Your task to perform on an android device: turn off location Image 0: 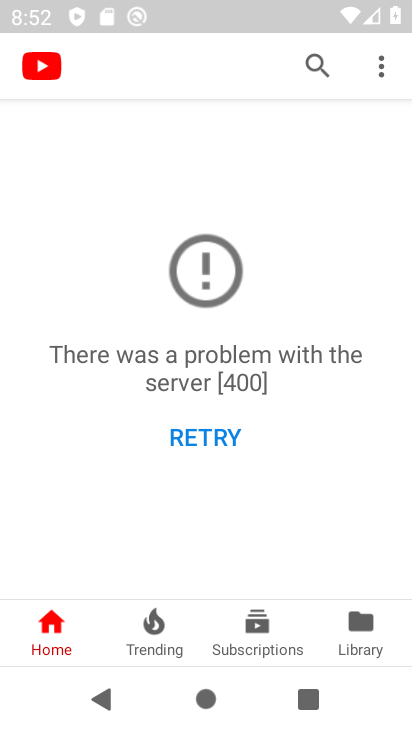
Step 0: press home button
Your task to perform on an android device: turn off location Image 1: 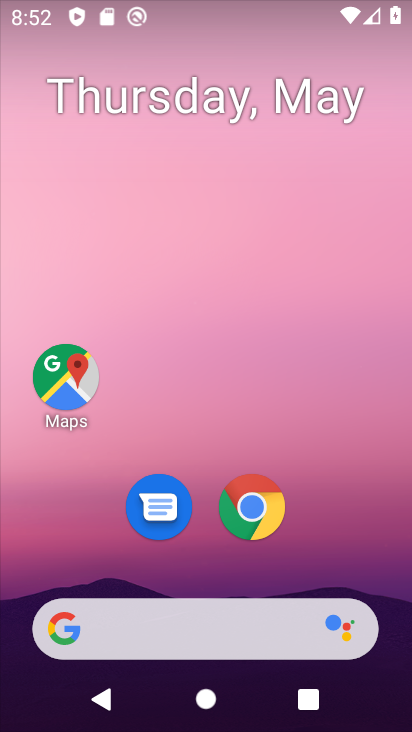
Step 1: drag from (329, 499) to (317, 16)
Your task to perform on an android device: turn off location Image 2: 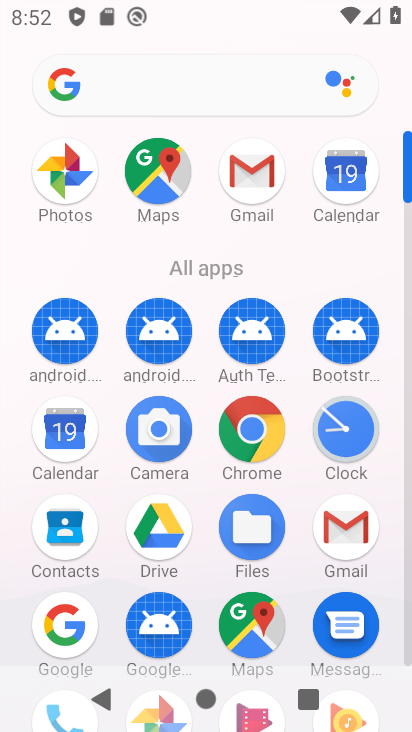
Step 2: drag from (210, 584) to (269, 152)
Your task to perform on an android device: turn off location Image 3: 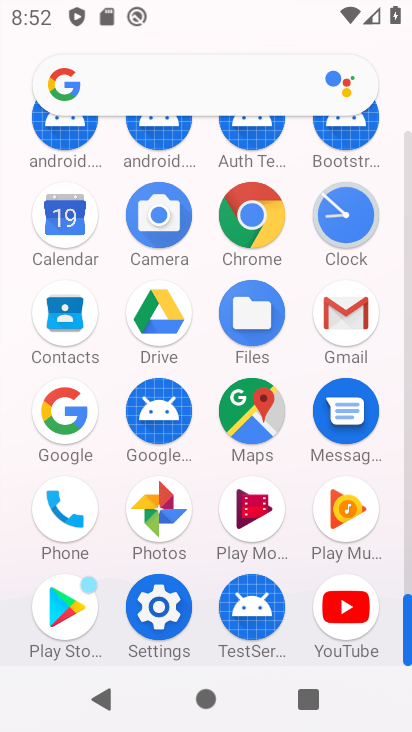
Step 3: click (145, 600)
Your task to perform on an android device: turn off location Image 4: 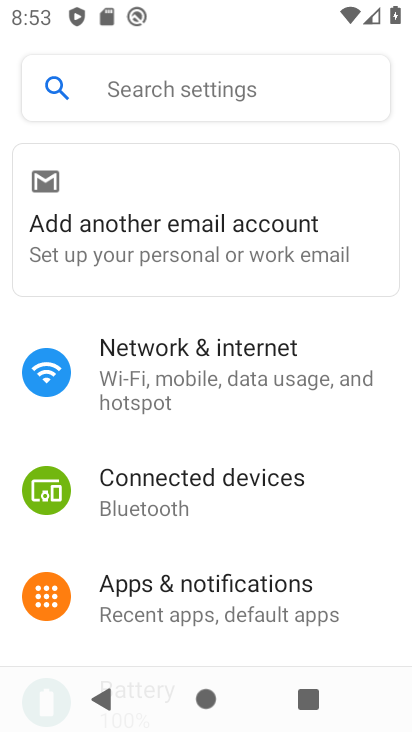
Step 4: drag from (241, 590) to (266, 76)
Your task to perform on an android device: turn off location Image 5: 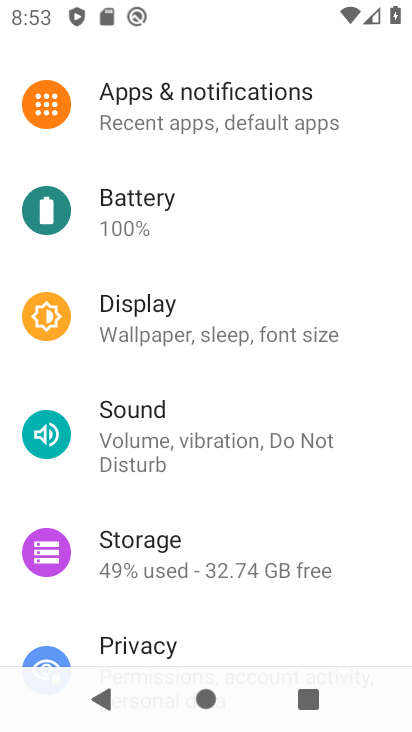
Step 5: drag from (155, 567) to (120, 130)
Your task to perform on an android device: turn off location Image 6: 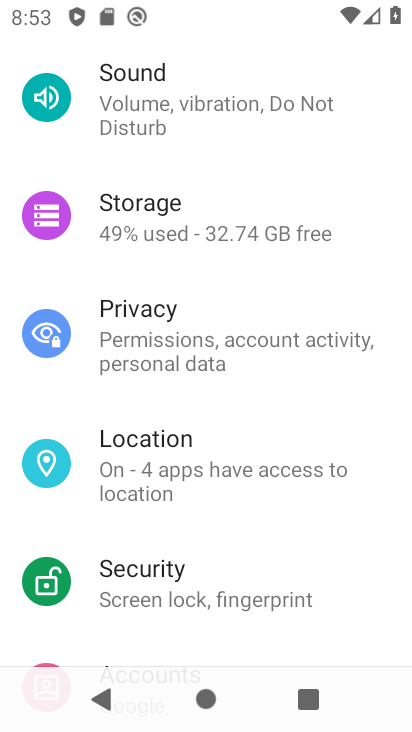
Step 6: click (204, 477)
Your task to perform on an android device: turn off location Image 7: 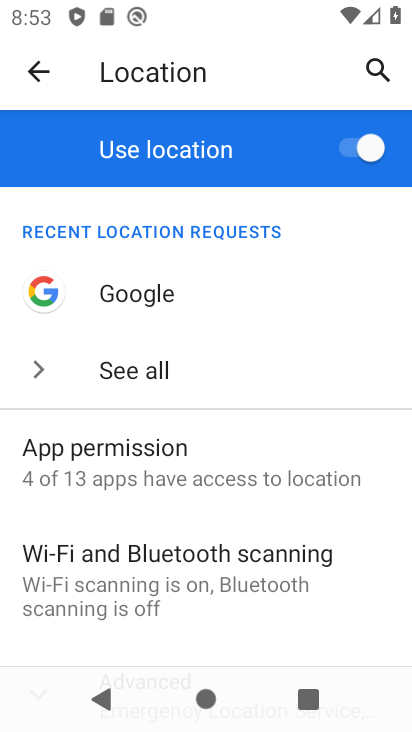
Step 7: click (329, 150)
Your task to perform on an android device: turn off location Image 8: 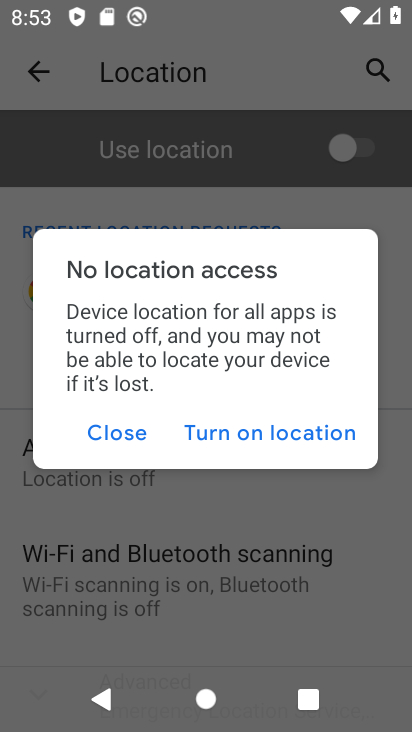
Step 8: task complete